Your task to perform on an android device: search for starred emails in the gmail app Image 0: 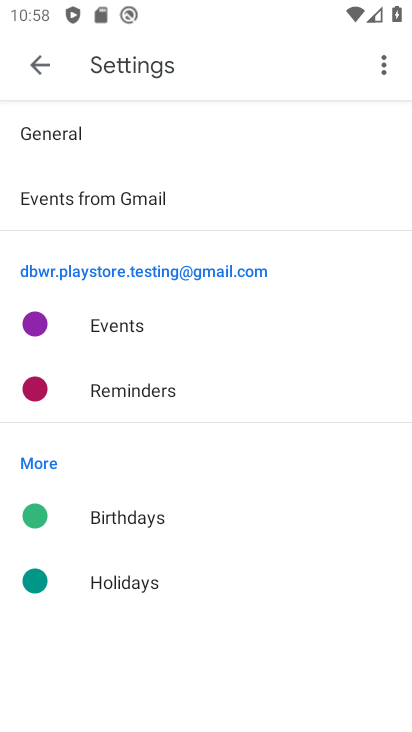
Step 0: press home button
Your task to perform on an android device: search for starred emails in the gmail app Image 1: 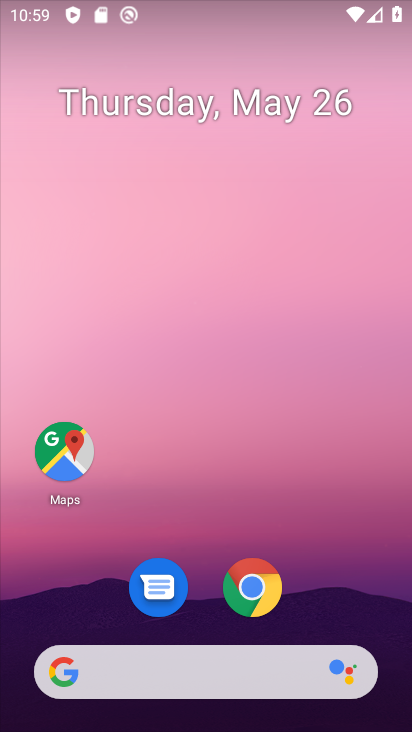
Step 1: drag from (177, 721) to (324, 169)
Your task to perform on an android device: search for starred emails in the gmail app Image 2: 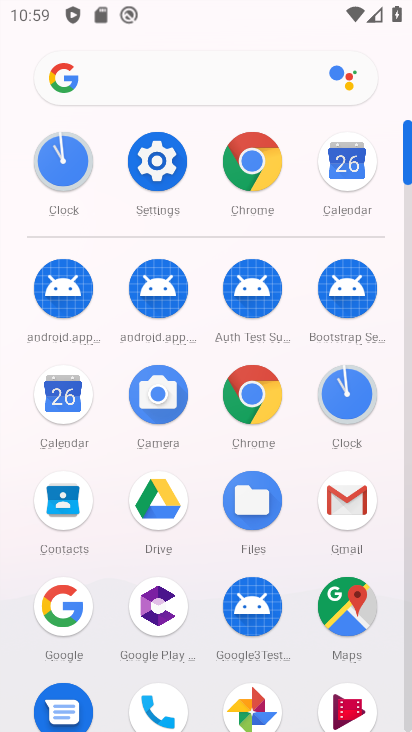
Step 2: click (333, 501)
Your task to perform on an android device: search for starred emails in the gmail app Image 3: 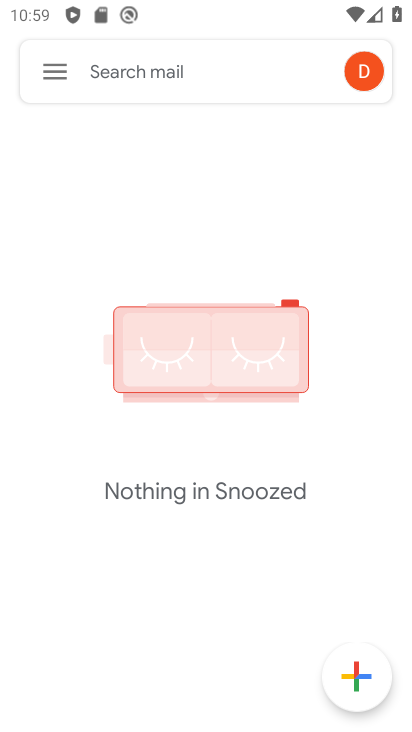
Step 3: click (56, 78)
Your task to perform on an android device: search for starred emails in the gmail app Image 4: 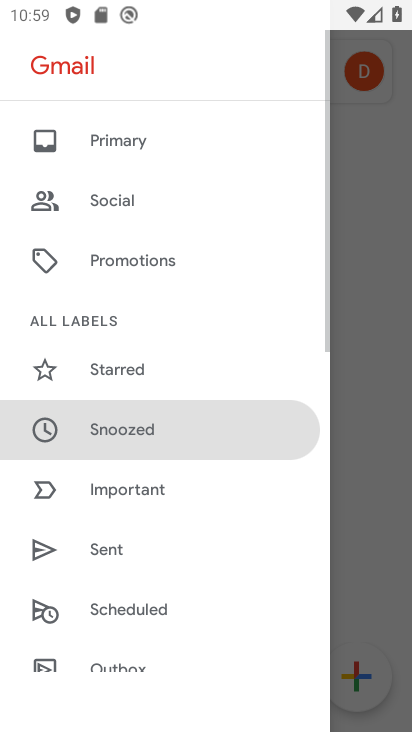
Step 4: drag from (109, 439) to (89, 563)
Your task to perform on an android device: search for starred emails in the gmail app Image 5: 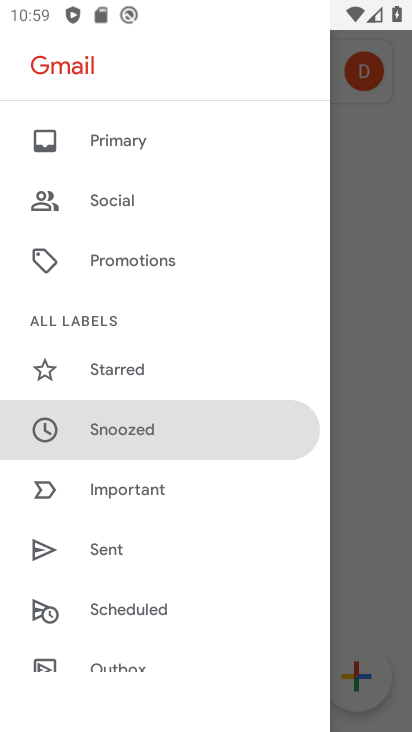
Step 5: click (133, 381)
Your task to perform on an android device: search for starred emails in the gmail app Image 6: 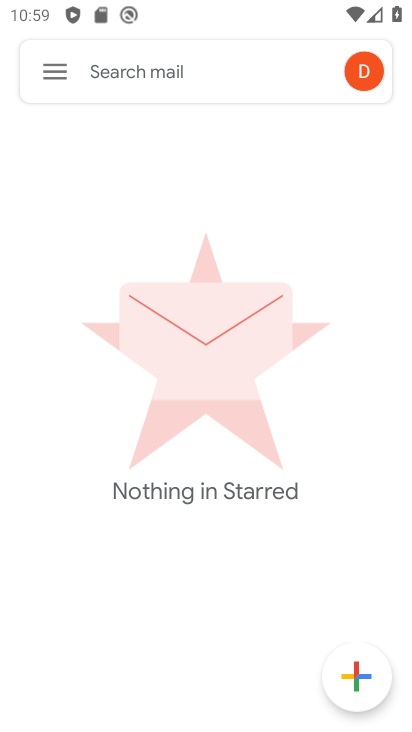
Step 6: task complete